Your task to perform on an android device: Open Amazon Image 0: 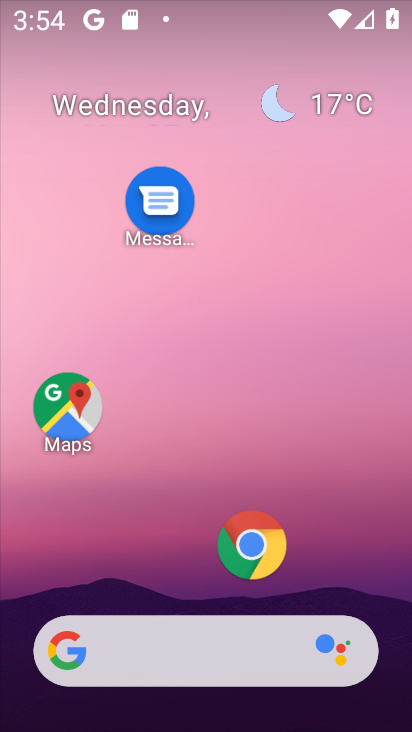
Step 0: click (273, 554)
Your task to perform on an android device: Open Amazon Image 1: 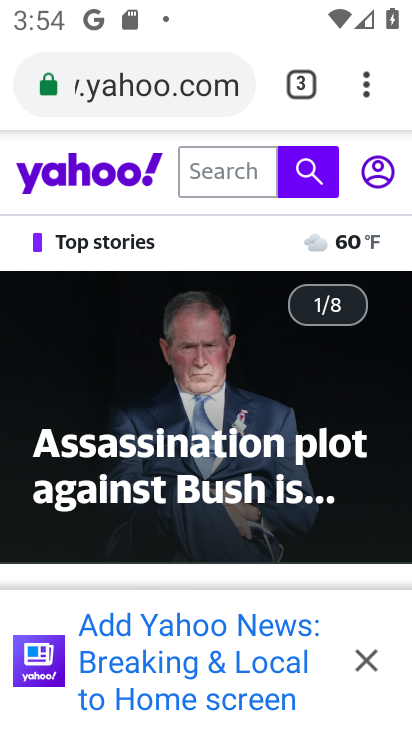
Step 1: click (305, 83)
Your task to perform on an android device: Open Amazon Image 2: 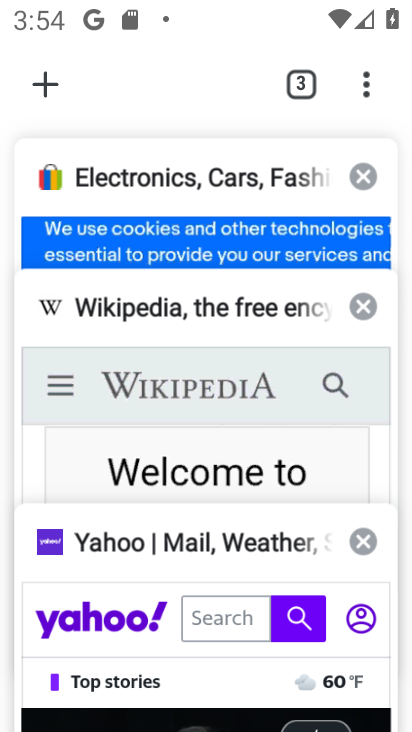
Step 2: click (36, 76)
Your task to perform on an android device: Open Amazon Image 3: 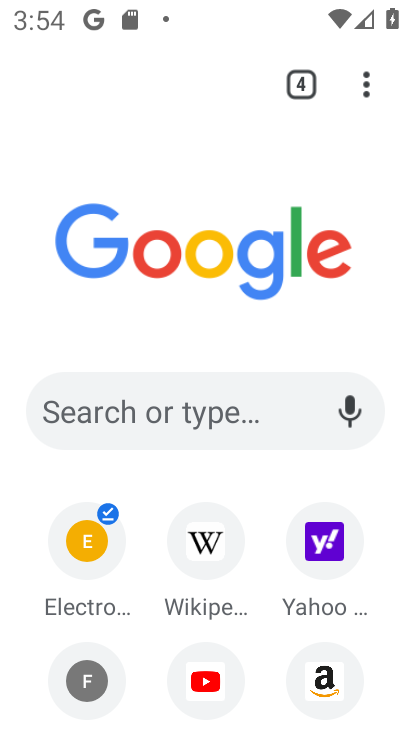
Step 3: click (309, 667)
Your task to perform on an android device: Open Amazon Image 4: 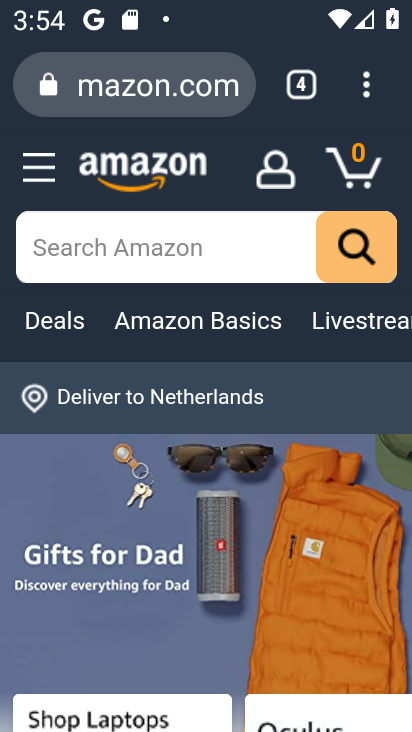
Step 4: task complete